Your task to perform on an android device: Show the shopping cart on newegg. Search for "razer huntsman" on newegg, select the first entry, add it to the cart, then select checkout. Image 0: 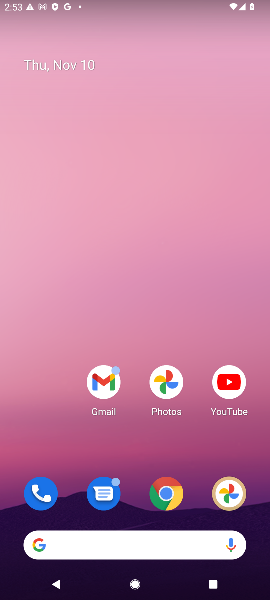
Step 0: drag from (96, 524) to (102, 3)
Your task to perform on an android device: Show the shopping cart on newegg. Search for "razer huntsman" on newegg, select the first entry, add it to the cart, then select checkout. Image 1: 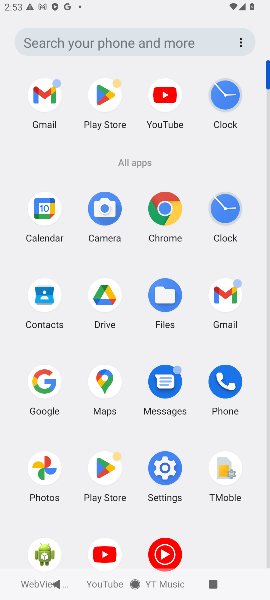
Step 1: click (48, 375)
Your task to perform on an android device: Show the shopping cart on newegg. Search for "razer huntsman" on newegg, select the first entry, add it to the cart, then select checkout. Image 2: 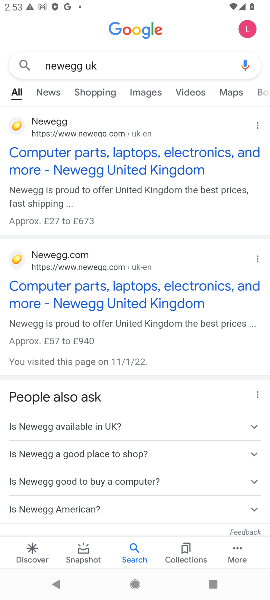
Step 2: click (115, 65)
Your task to perform on an android device: Show the shopping cart on newegg. Search for "razer huntsman" on newegg, select the first entry, add it to the cart, then select checkout. Image 3: 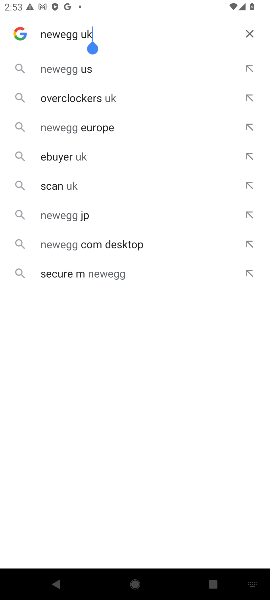
Step 3: click (251, 38)
Your task to perform on an android device: Show the shopping cart on newegg. Search for "razer huntsman" on newegg, select the first entry, add it to the cart, then select checkout. Image 4: 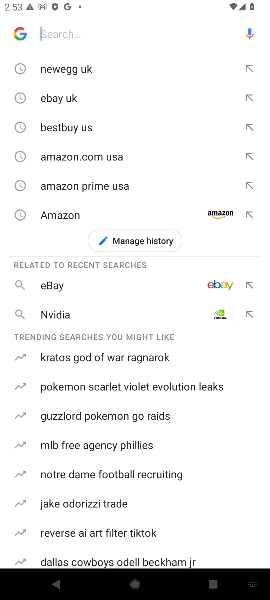
Step 4: click (63, 61)
Your task to perform on an android device: Show the shopping cart on newegg. Search for "razer huntsman" on newegg, select the first entry, add it to the cart, then select checkout. Image 5: 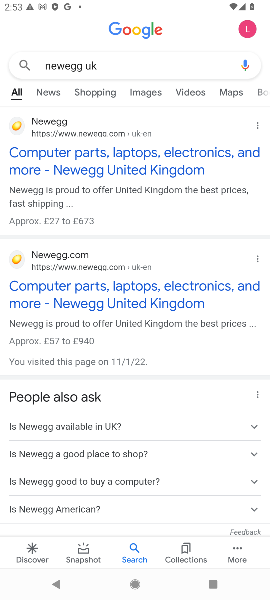
Step 5: click (16, 124)
Your task to perform on an android device: Show the shopping cart on newegg. Search for "razer huntsman" on newegg, select the first entry, add it to the cart, then select checkout. Image 6: 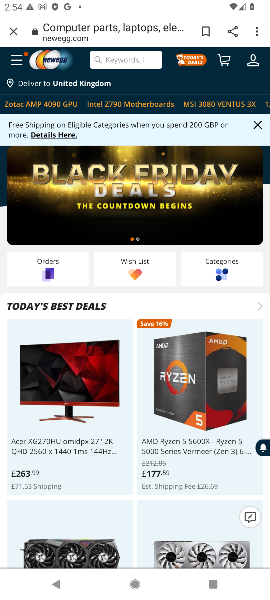
Step 6: click (125, 52)
Your task to perform on an android device: Show the shopping cart on newegg. Search for "razer huntsman" on newegg, select the first entry, add it to the cart, then select checkout. Image 7: 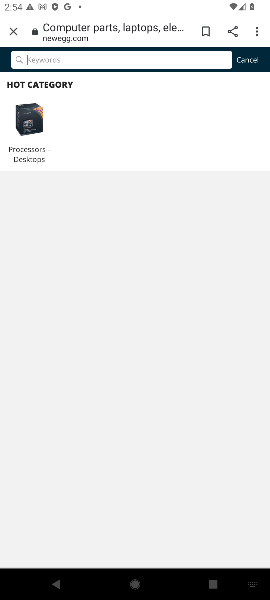
Step 7: click (119, 55)
Your task to perform on an android device: Show the shopping cart on newegg. Search for "razer huntsman" on newegg, select the first entry, add it to the cart, then select checkout. Image 8: 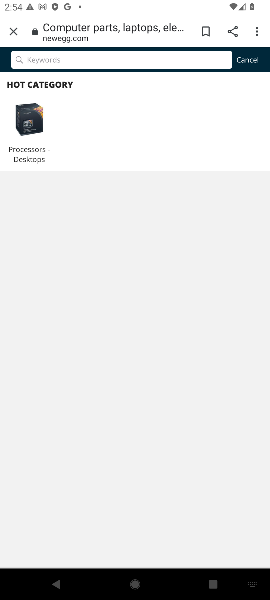
Step 8: type "razer huntsman "
Your task to perform on an android device: Show the shopping cart on newegg. Search for "razer huntsman" on newegg, select the first entry, add it to the cart, then select checkout. Image 9: 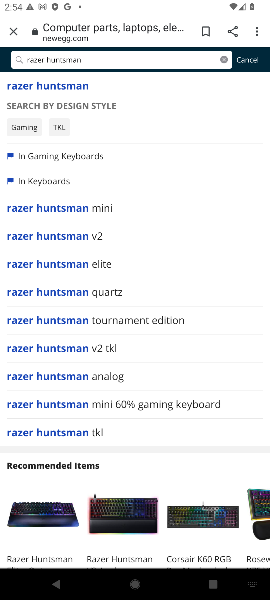
Step 9: click (62, 206)
Your task to perform on an android device: Show the shopping cart on newegg. Search for "razer huntsman" on newegg, select the first entry, add it to the cart, then select checkout. Image 10: 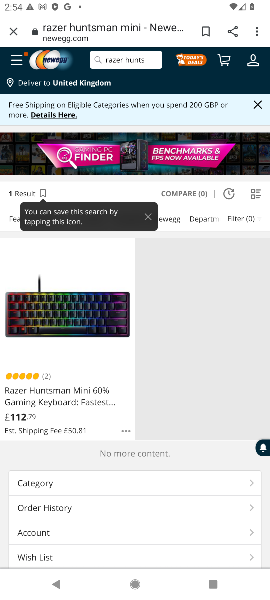
Step 10: drag from (153, 423) to (164, 274)
Your task to perform on an android device: Show the shopping cart on newegg. Search for "razer huntsman" on newegg, select the first entry, add it to the cart, then select checkout. Image 11: 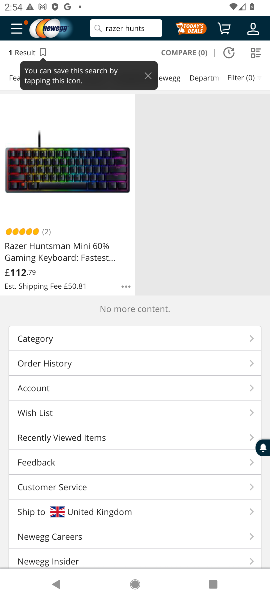
Step 11: click (77, 240)
Your task to perform on an android device: Show the shopping cart on newegg. Search for "razer huntsman" on newegg, select the first entry, add it to the cart, then select checkout. Image 12: 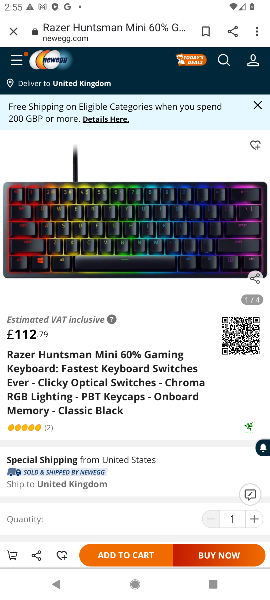
Step 12: click (132, 556)
Your task to perform on an android device: Show the shopping cart on newegg. Search for "razer huntsman" on newegg, select the first entry, add it to the cart, then select checkout. Image 13: 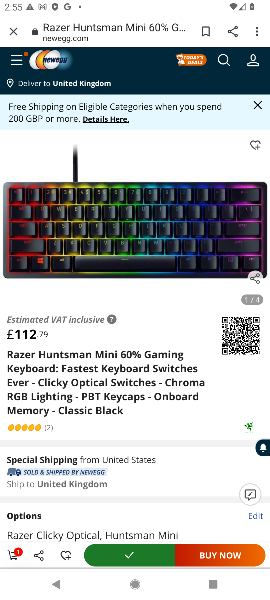
Step 13: task complete